Your task to perform on an android device: Search for sushi restaurants on Maps Image 0: 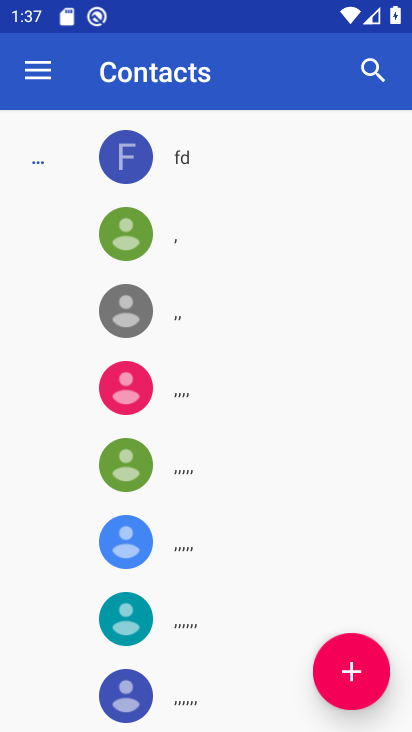
Step 0: press home button
Your task to perform on an android device: Search for sushi restaurants on Maps Image 1: 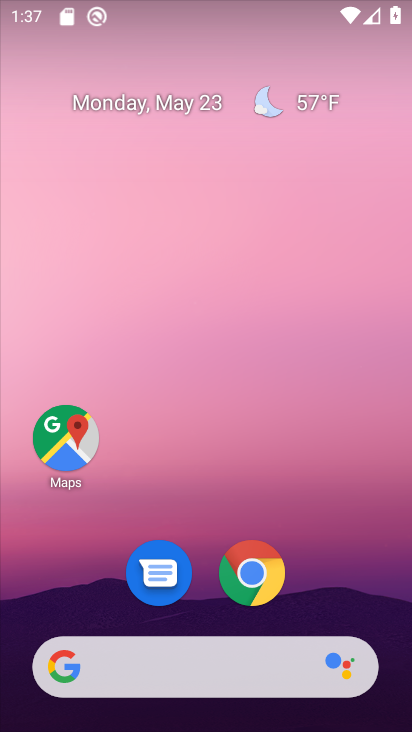
Step 1: click (74, 439)
Your task to perform on an android device: Search for sushi restaurants on Maps Image 2: 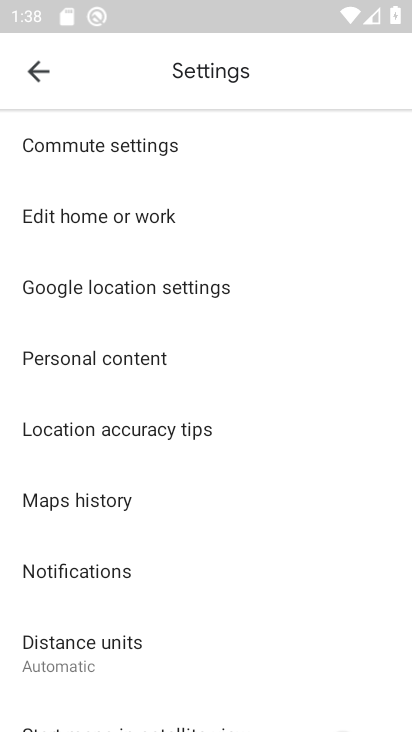
Step 2: click (43, 70)
Your task to perform on an android device: Search for sushi restaurants on Maps Image 3: 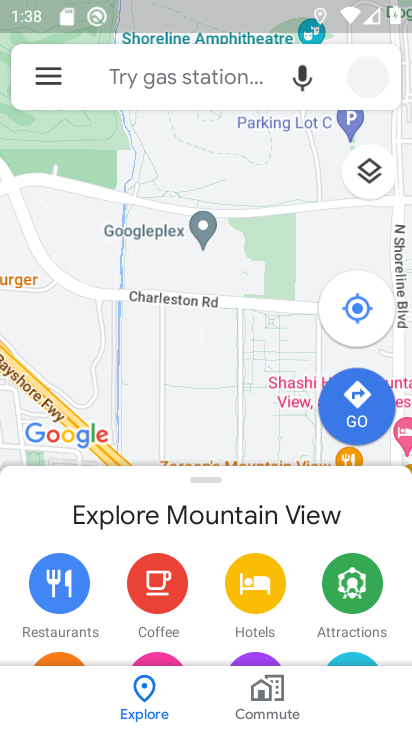
Step 3: click (146, 78)
Your task to perform on an android device: Search for sushi restaurants on Maps Image 4: 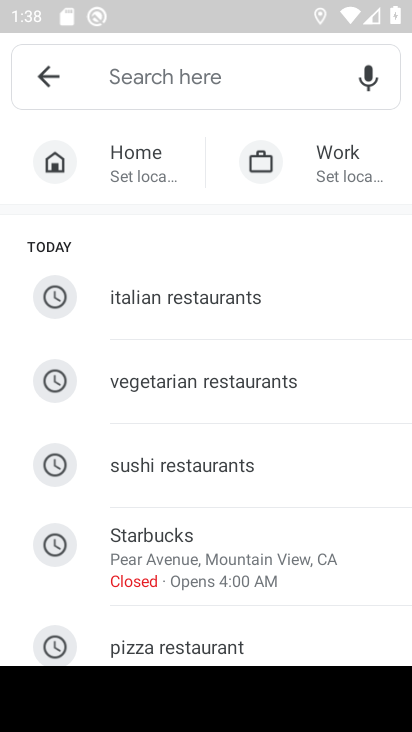
Step 4: click (215, 460)
Your task to perform on an android device: Search for sushi restaurants on Maps Image 5: 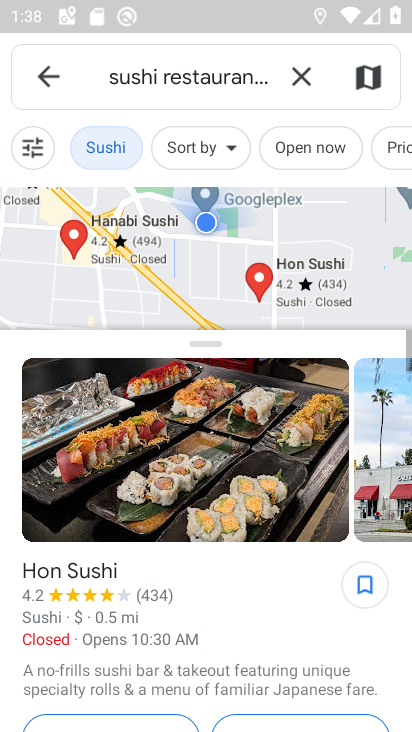
Step 5: task complete